Your task to perform on an android device: Check the news Image 0: 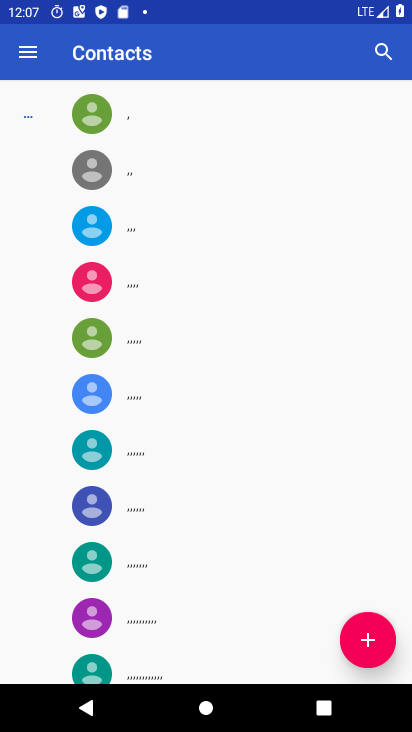
Step 0: press home button
Your task to perform on an android device: Check the news Image 1: 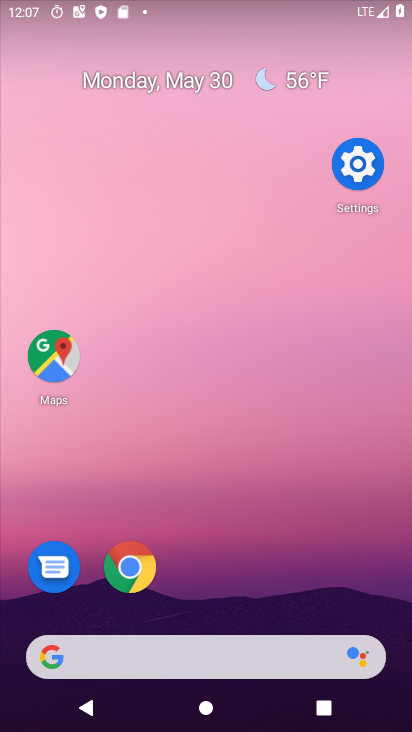
Step 1: drag from (299, 572) to (257, 138)
Your task to perform on an android device: Check the news Image 2: 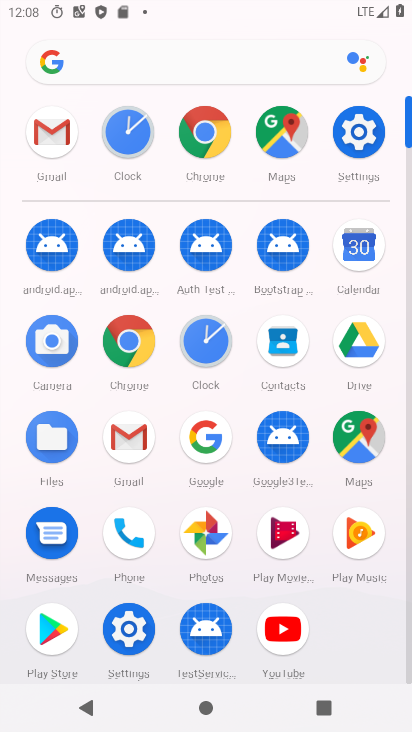
Step 2: click (208, 147)
Your task to perform on an android device: Check the news Image 3: 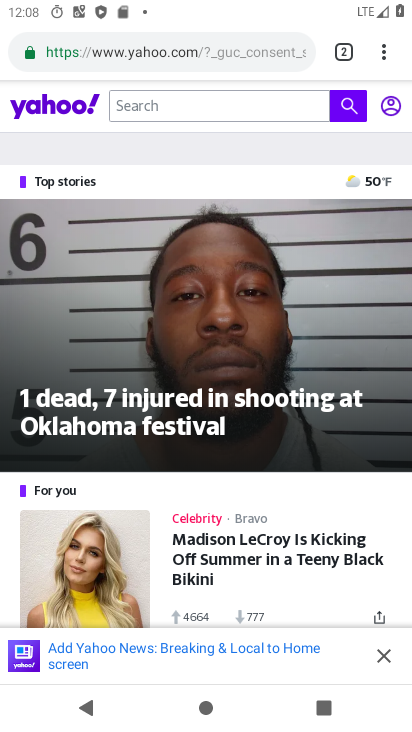
Step 3: click (203, 53)
Your task to perform on an android device: Check the news Image 4: 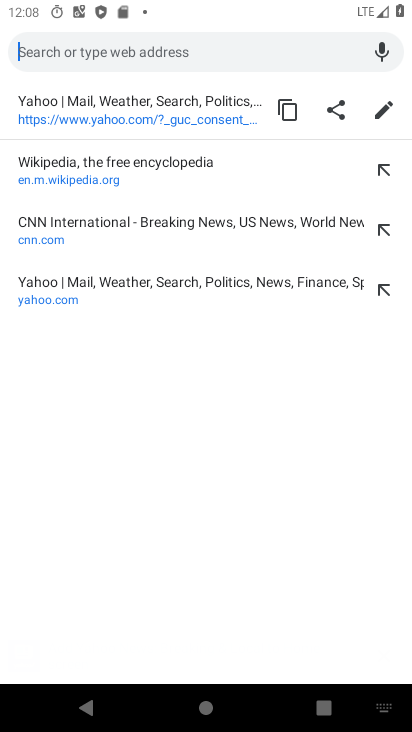
Step 4: type "check the news"
Your task to perform on an android device: Check the news Image 5: 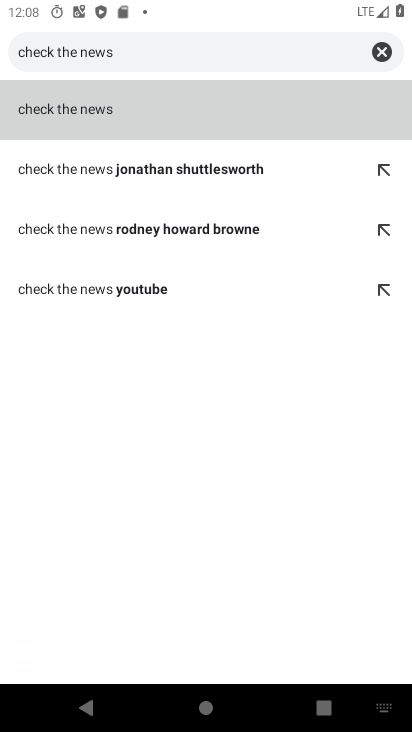
Step 5: click (92, 103)
Your task to perform on an android device: Check the news Image 6: 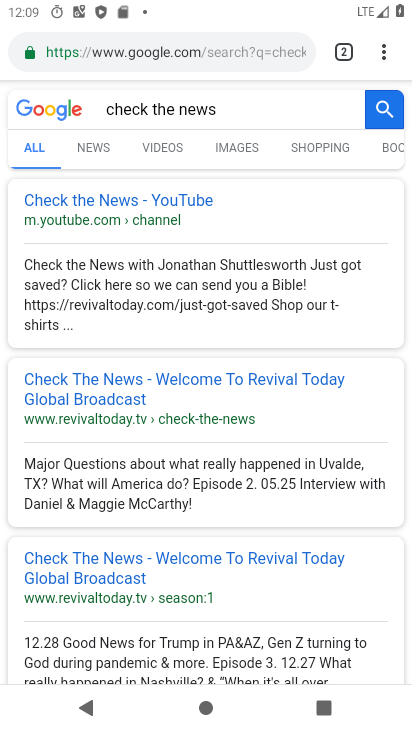
Step 6: task complete